Your task to perform on an android device: uninstall "Spotify" Image 0: 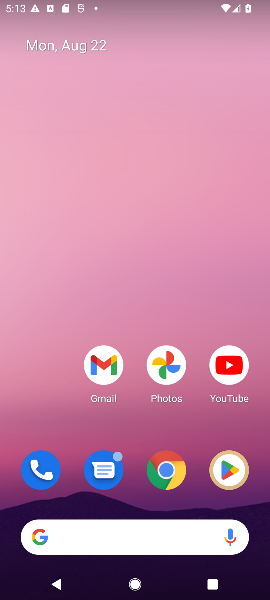
Step 0: drag from (191, 499) to (160, 130)
Your task to perform on an android device: uninstall "Spotify" Image 1: 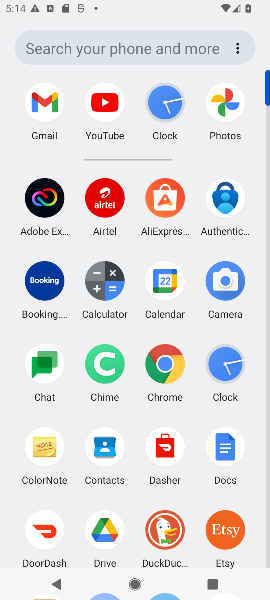
Step 1: drag from (79, 393) to (107, 117)
Your task to perform on an android device: uninstall "Spotify" Image 2: 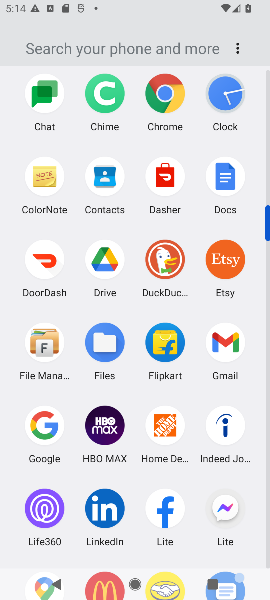
Step 2: drag from (152, 572) to (178, 153)
Your task to perform on an android device: uninstall "Spotify" Image 3: 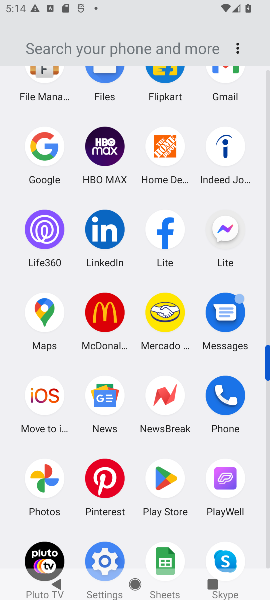
Step 3: drag from (151, 535) to (175, 195)
Your task to perform on an android device: uninstall "Spotify" Image 4: 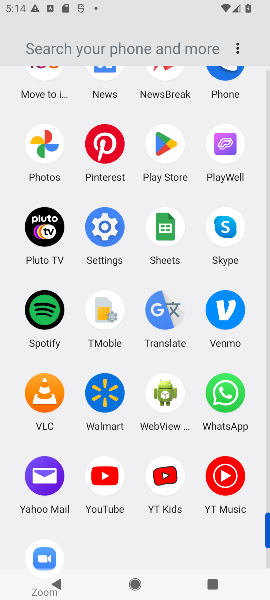
Step 4: click (49, 309)
Your task to perform on an android device: uninstall "Spotify" Image 5: 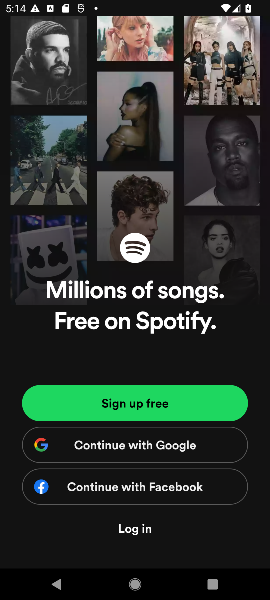
Step 5: press home button
Your task to perform on an android device: uninstall "Spotify" Image 6: 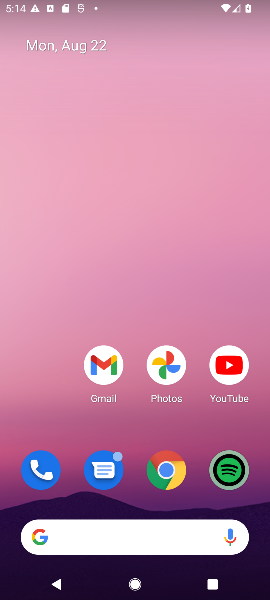
Step 6: drag from (131, 496) to (136, 136)
Your task to perform on an android device: uninstall "Spotify" Image 7: 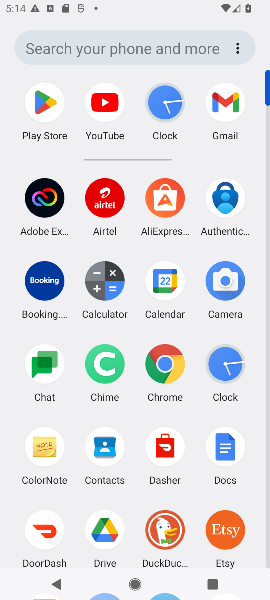
Step 7: click (50, 103)
Your task to perform on an android device: uninstall "Spotify" Image 8: 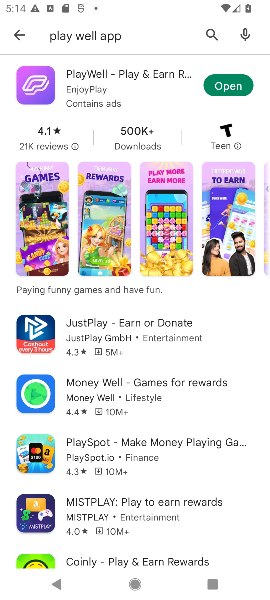
Step 8: click (25, 30)
Your task to perform on an android device: uninstall "Spotify" Image 9: 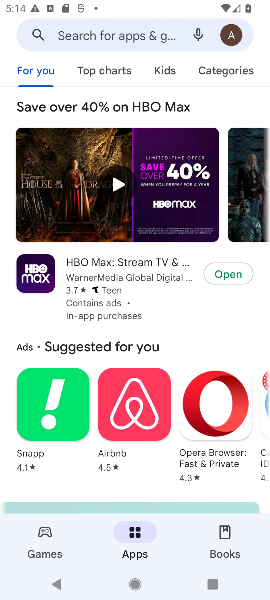
Step 9: click (94, 23)
Your task to perform on an android device: uninstall "Spotify" Image 10: 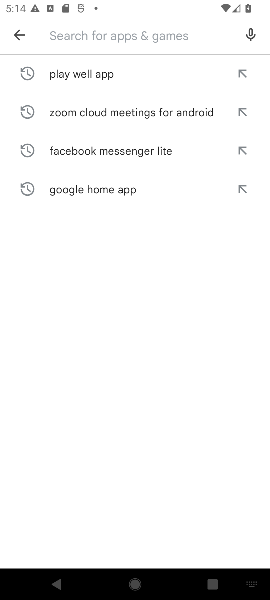
Step 10: type "Spotify "
Your task to perform on an android device: uninstall "Spotify" Image 11: 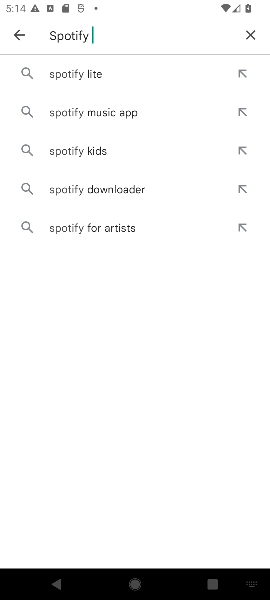
Step 11: click (110, 79)
Your task to perform on an android device: uninstall "Spotify" Image 12: 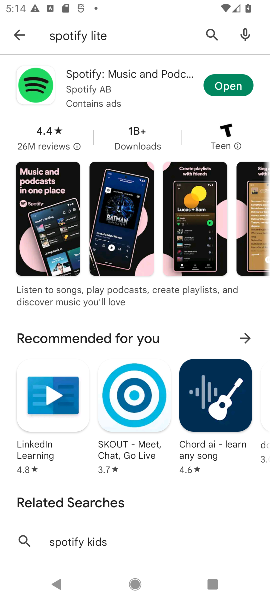
Step 12: click (115, 82)
Your task to perform on an android device: uninstall "Spotify" Image 13: 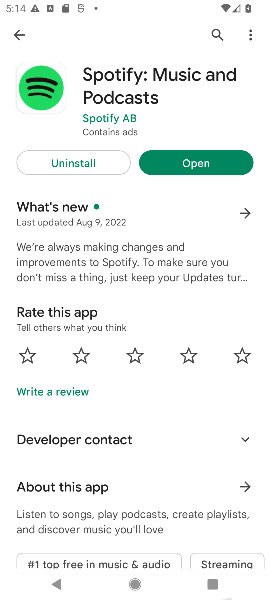
Step 13: click (58, 157)
Your task to perform on an android device: uninstall "Spotify" Image 14: 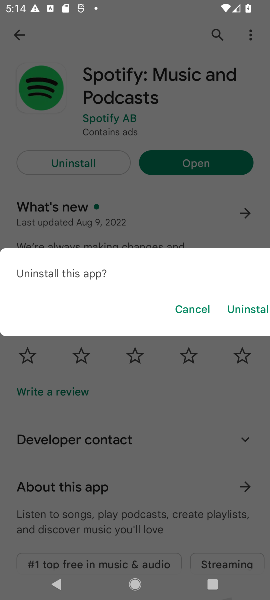
Step 14: click (252, 316)
Your task to perform on an android device: uninstall "Spotify" Image 15: 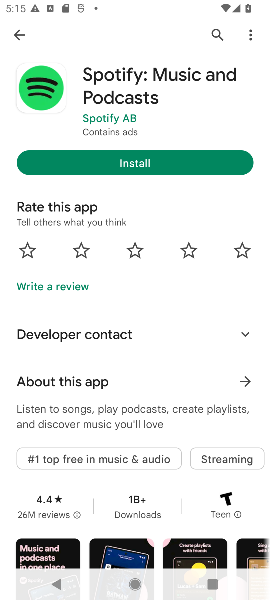
Step 15: task complete